Your task to perform on an android device: What's the weather going to be this weekend? Image 0: 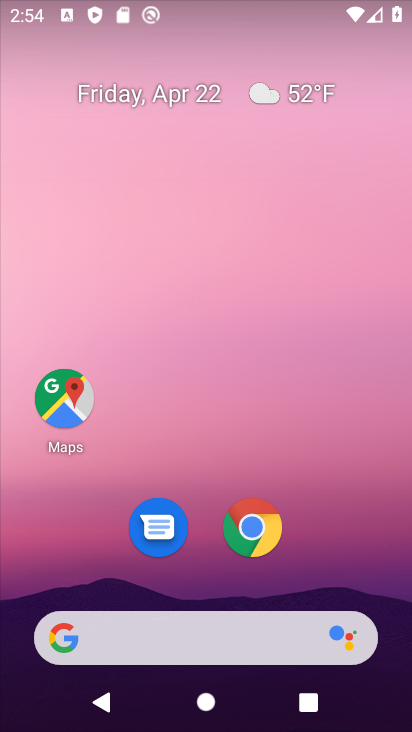
Step 0: drag from (353, 549) to (399, 118)
Your task to perform on an android device: What's the weather going to be this weekend? Image 1: 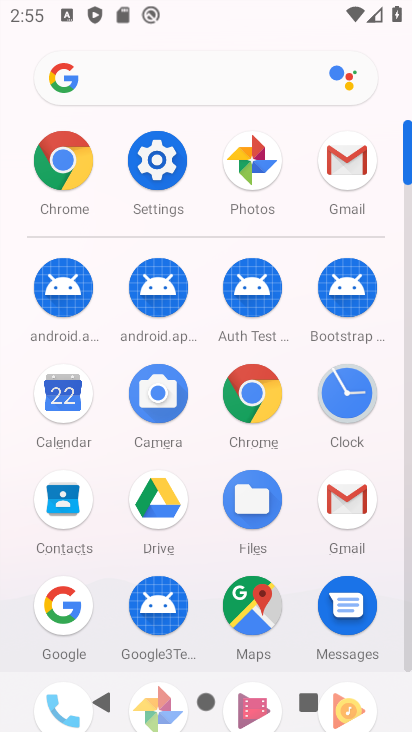
Step 1: click (65, 609)
Your task to perform on an android device: What's the weather going to be this weekend? Image 2: 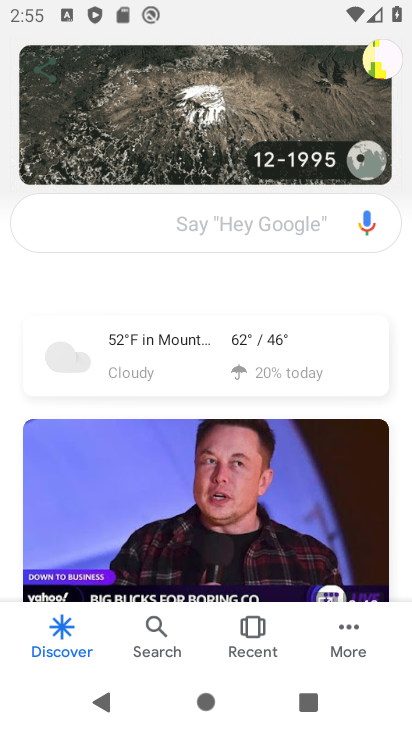
Step 2: click (165, 351)
Your task to perform on an android device: What's the weather going to be this weekend? Image 3: 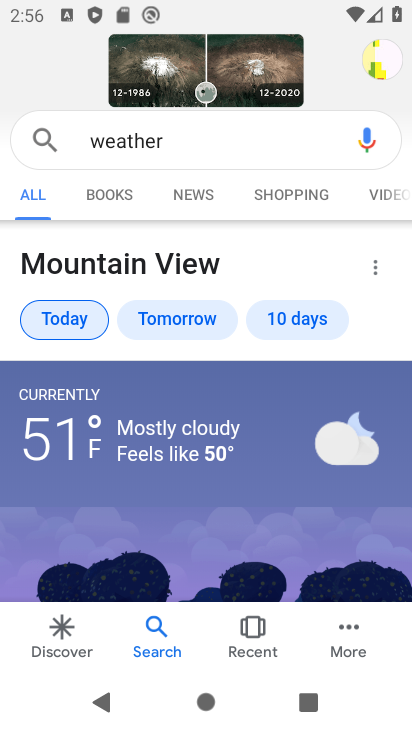
Step 3: task complete